Your task to perform on an android device: What's the weather? Image 0: 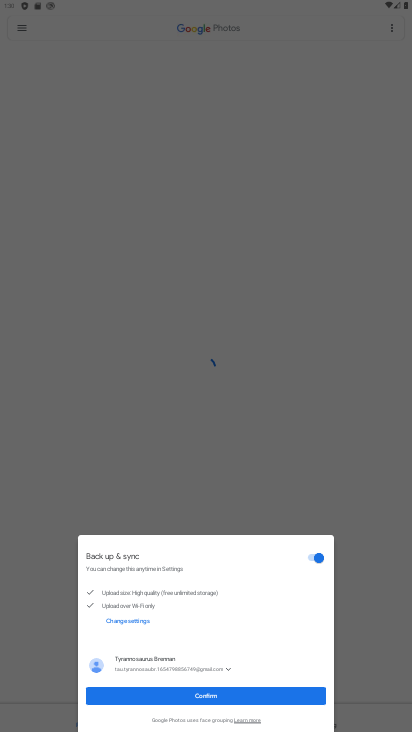
Step 0: press home button
Your task to perform on an android device: What's the weather? Image 1: 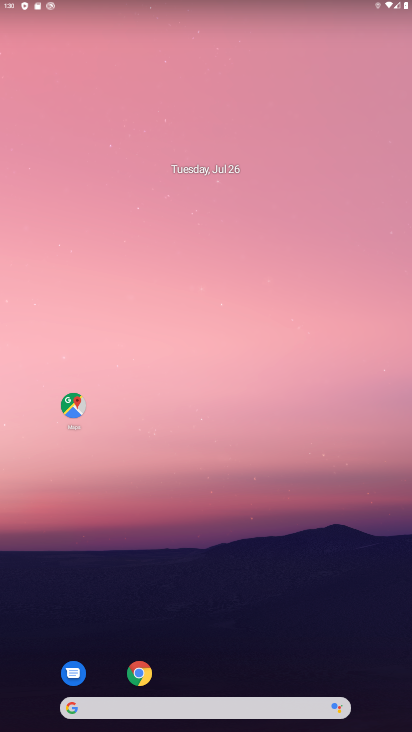
Step 1: click (141, 672)
Your task to perform on an android device: What's the weather? Image 2: 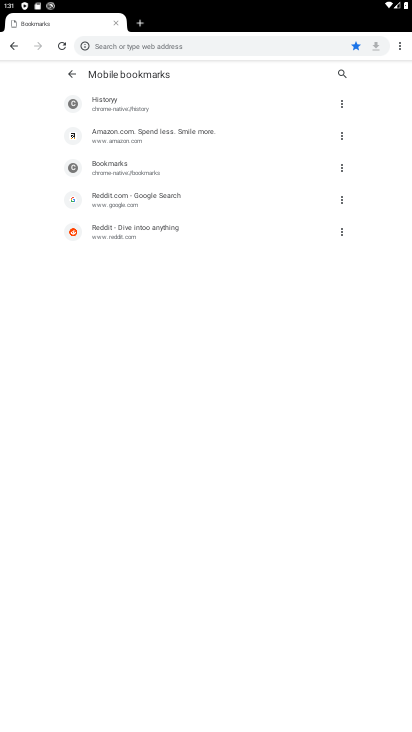
Step 2: click (214, 42)
Your task to perform on an android device: What's the weather? Image 3: 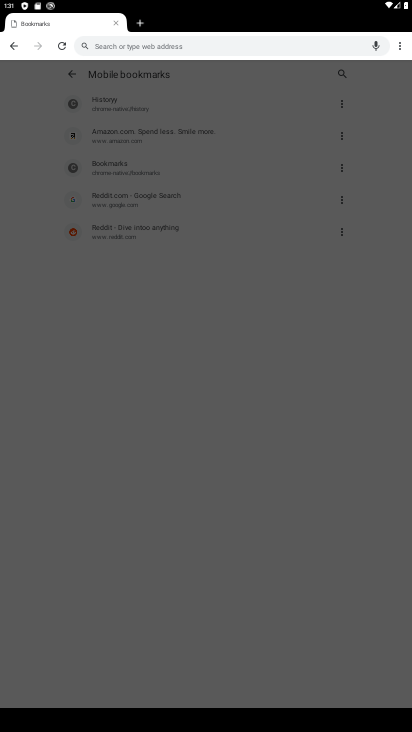
Step 3: type "What's the weather?"
Your task to perform on an android device: What's the weather? Image 4: 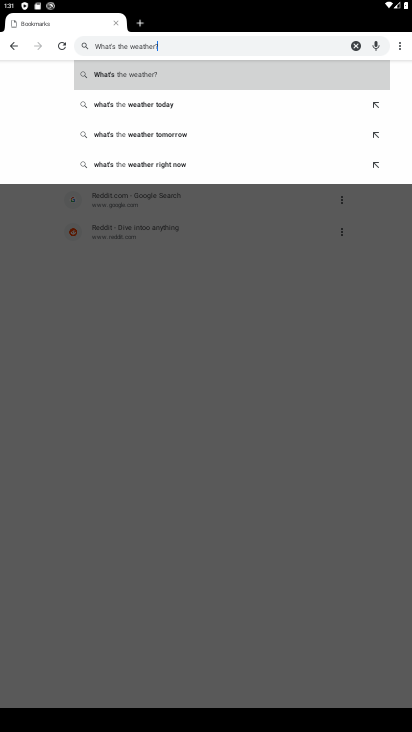
Step 4: click (302, 79)
Your task to perform on an android device: What's the weather? Image 5: 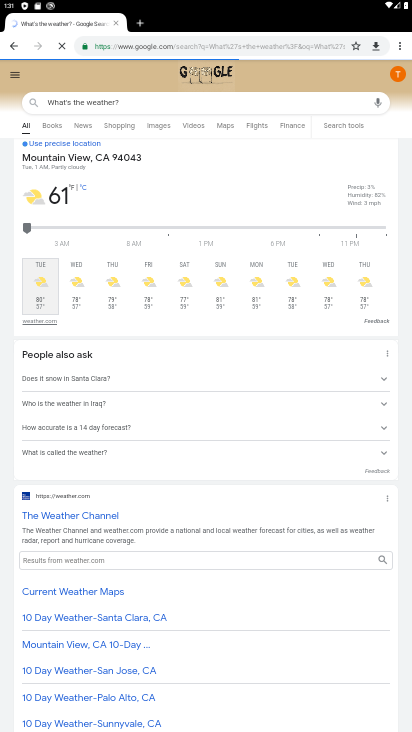
Step 5: task complete